Your task to perform on an android device: What is the news today? Image 0: 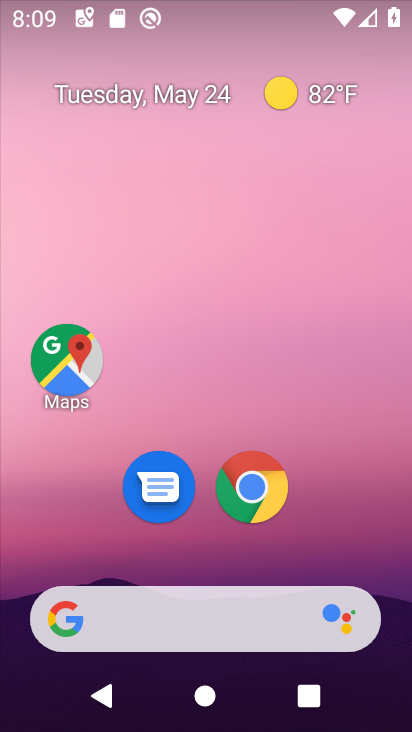
Step 0: drag from (379, 561) to (329, 175)
Your task to perform on an android device: What is the news today? Image 1: 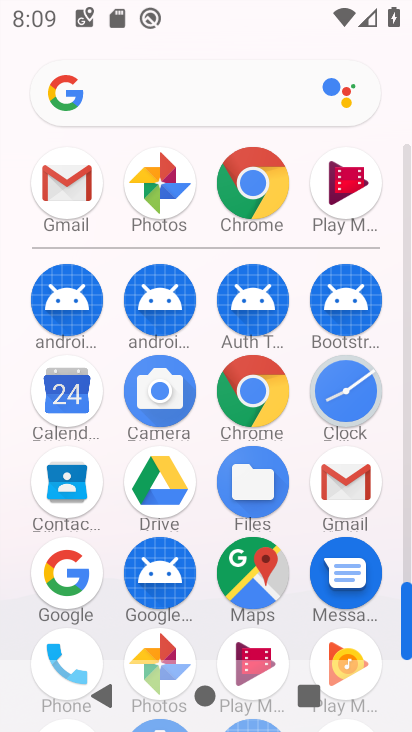
Step 1: click (242, 189)
Your task to perform on an android device: What is the news today? Image 2: 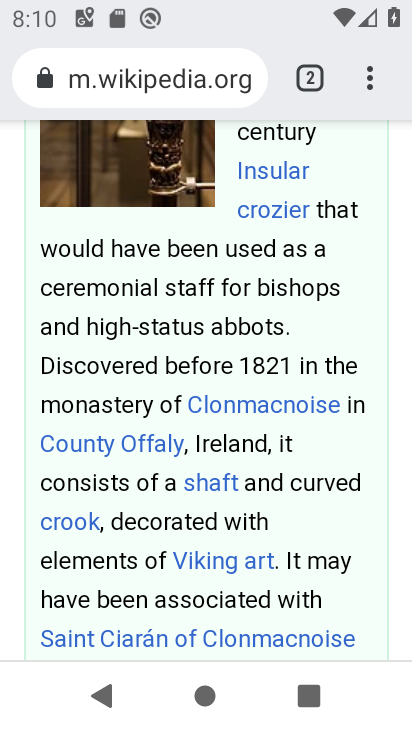
Step 2: click (218, 81)
Your task to perform on an android device: What is the news today? Image 3: 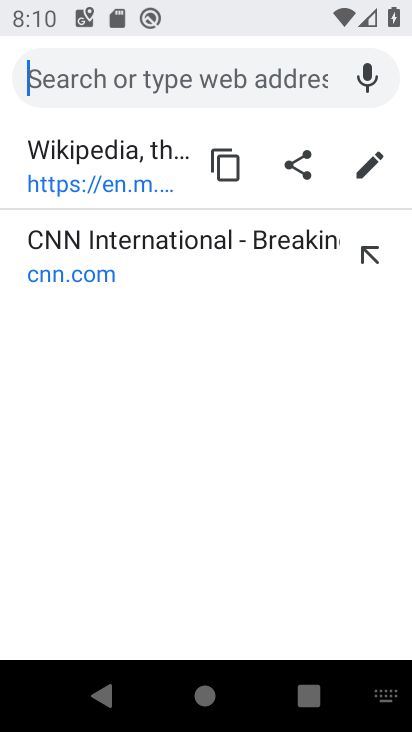
Step 3: type "what is the news today"
Your task to perform on an android device: What is the news today? Image 4: 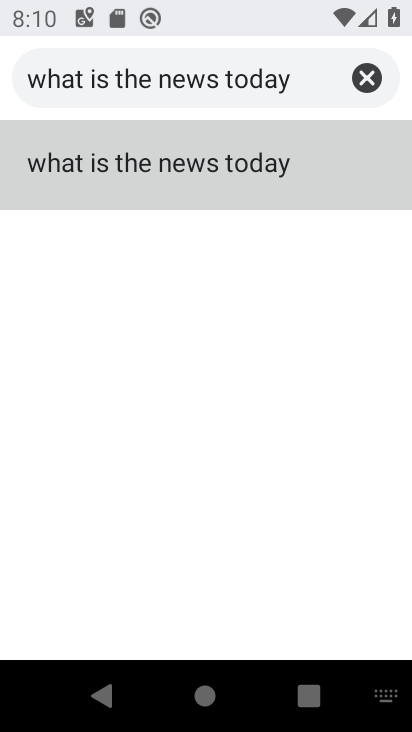
Step 4: click (149, 185)
Your task to perform on an android device: What is the news today? Image 5: 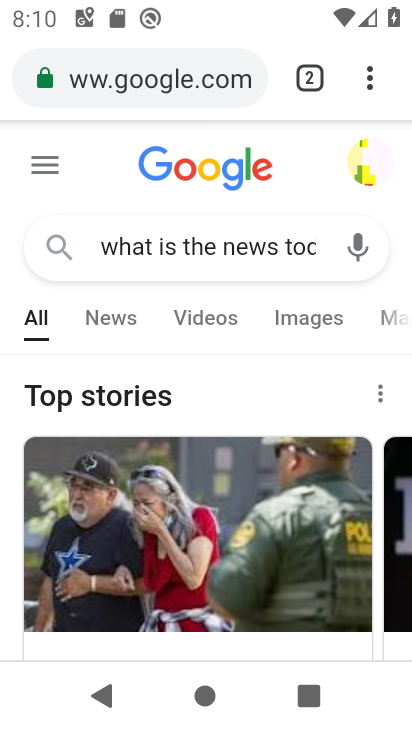
Step 5: task complete